Your task to perform on an android device: toggle sleep mode Image 0: 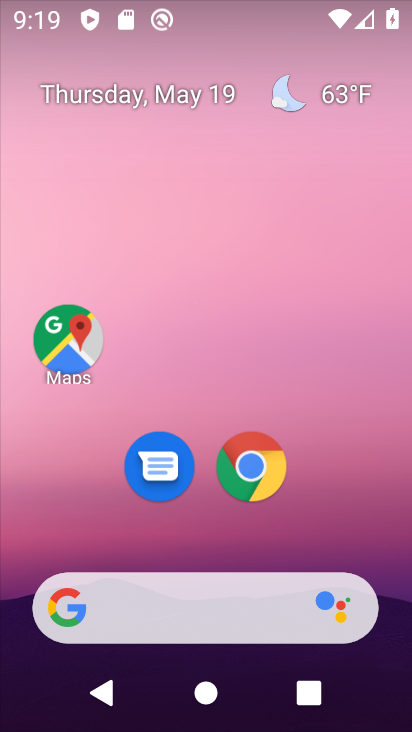
Step 0: drag from (390, 629) to (263, 31)
Your task to perform on an android device: toggle sleep mode Image 1: 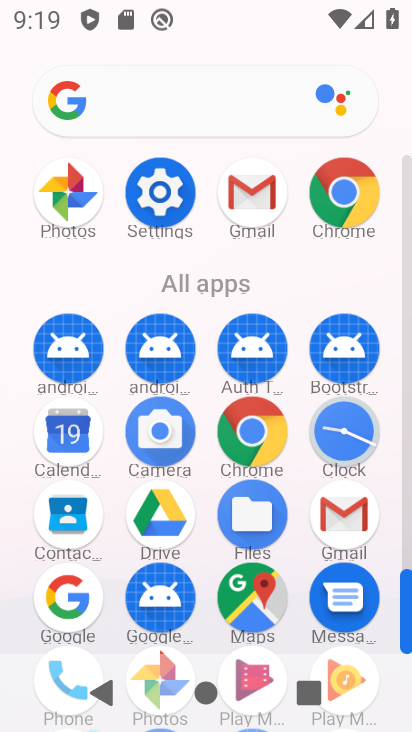
Step 1: click (162, 196)
Your task to perform on an android device: toggle sleep mode Image 2: 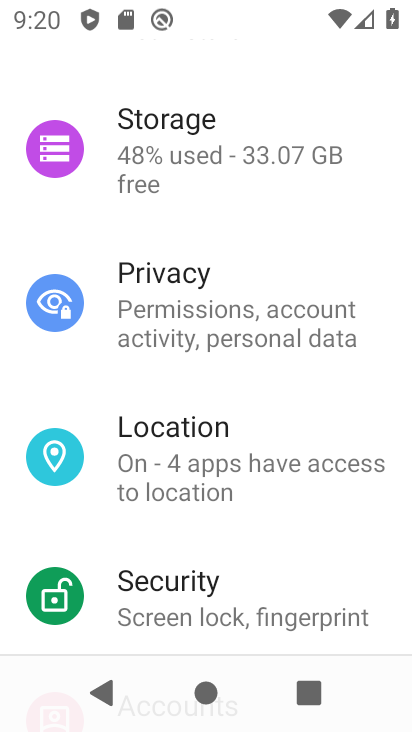
Step 2: task complete